Your task to perform on an android device: turn pop-ups off in chrome Image 0: 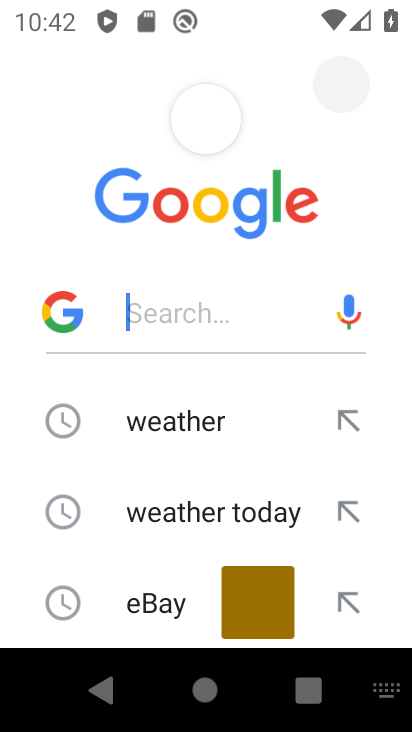
Step 0: press home button
Your task to perform on an android device: turn pop-ups off in chrome Image 1: 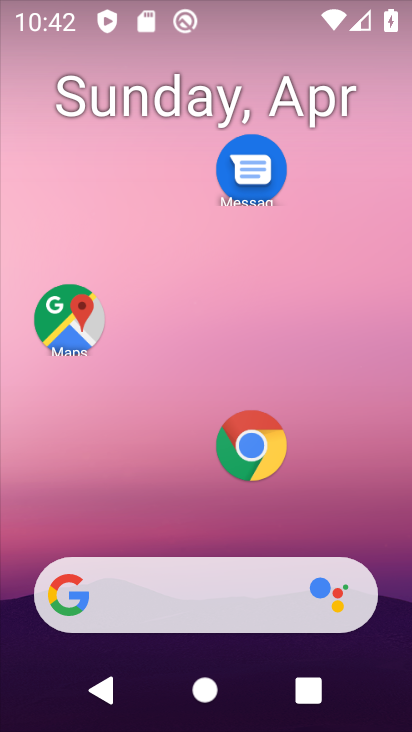
Step 1: drag from (157, 609) to (276, 209)
Your task to perform on an android device: turn pop-ups off in chrome Image 2: 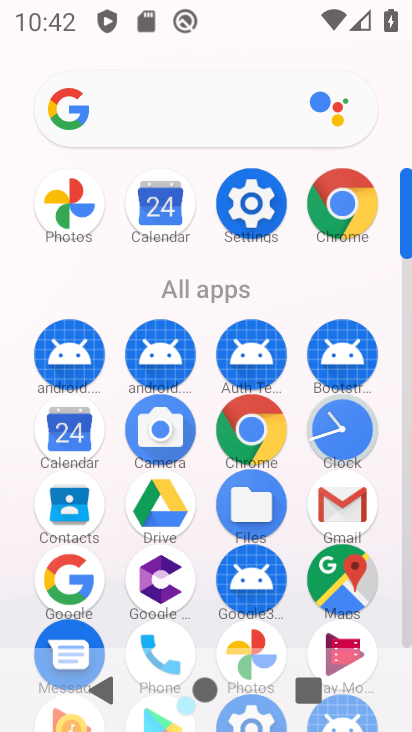
Step 2: click (346, 222)
Your task to perform on an android device: turn pop-ups off in chrome Image 3: 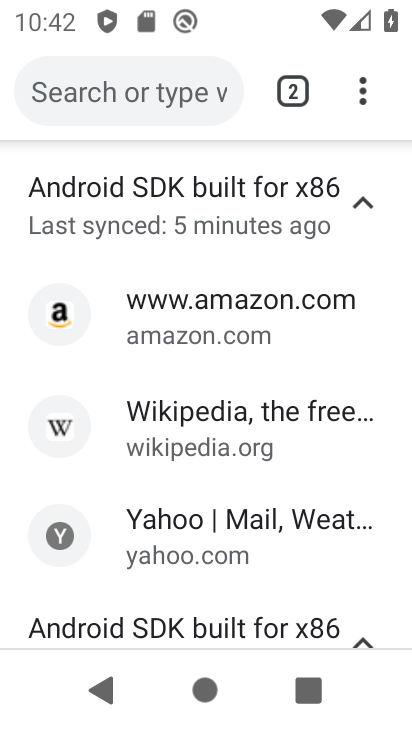
Step 3: drag from (361, 99) to (140, 471)
Your task to perform on an android device: turn pop-ups off in chrome Image 4: 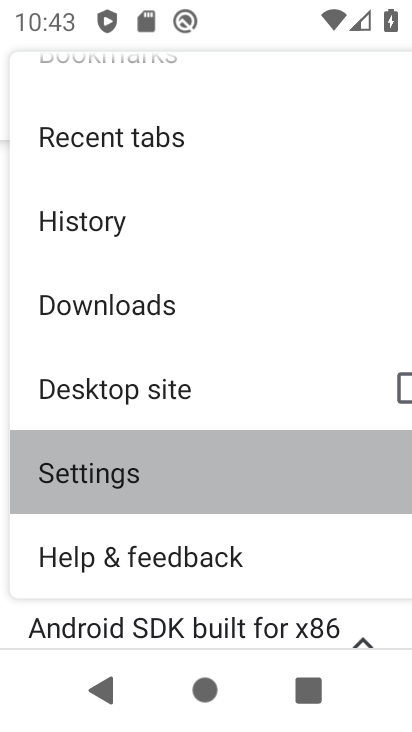
Step 4: click (140, 473)
Your task to perform on an android device: turn pop-ups off in chrome Image 5: 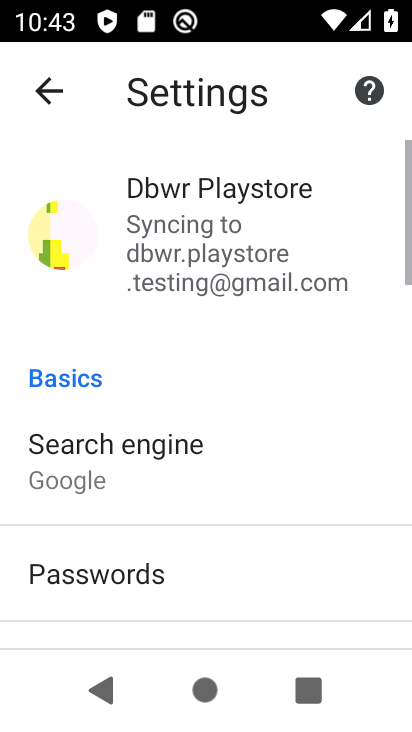
Step 5: drag from (130, 602) to (358, 94)
Your task to perform on an android device: turn pop-ups off in chrome Image 6: 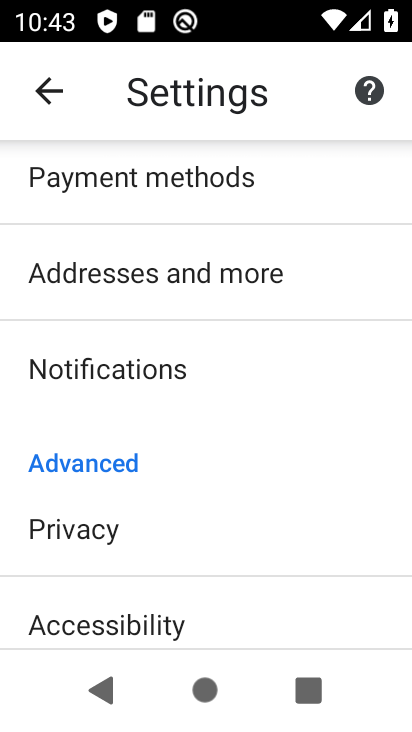
Step 6: drag from (118, 581) to (300, 170)
Your task to perform on an android device: turn pop-ups off in chrome Image 7: 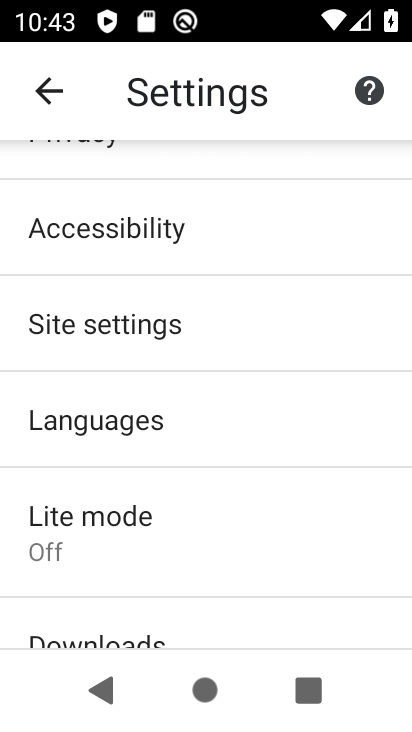
Step 7: click (130, 330)
Your task to perform on an android device: turn pop-ups off in chrome Image 8: 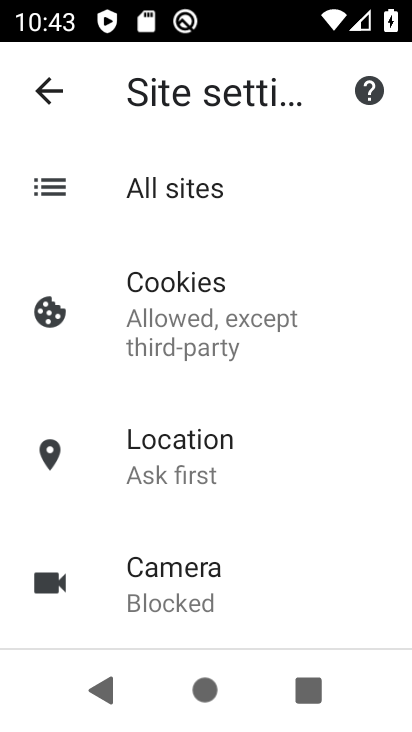
Step 8: drag from (217, 598) to (320, 275)
Your task to perform on an android device: turn pop-ups off in chrome Image 9: 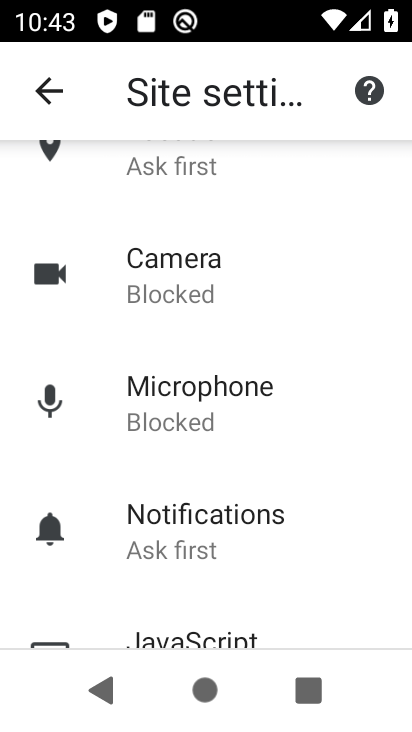
Step 9: drag from (219, 557) to (296, 251)
Your task to perform on an android device: turn pop-ups off in chrome Image 10: 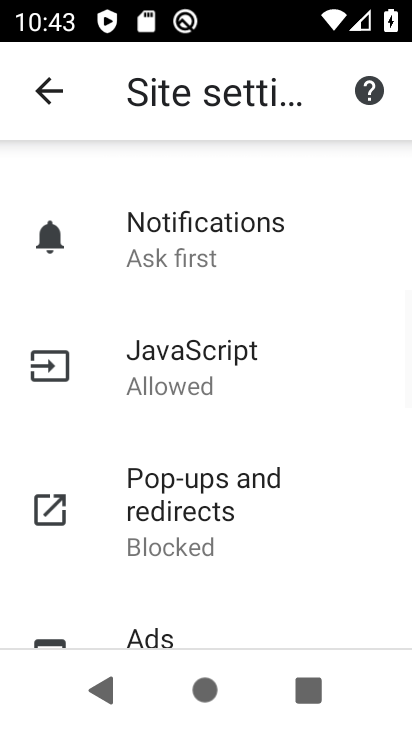
Step 10: click (207, 511)
Your task to perform on an android device: turn pop-ups off in chrome Image 11: 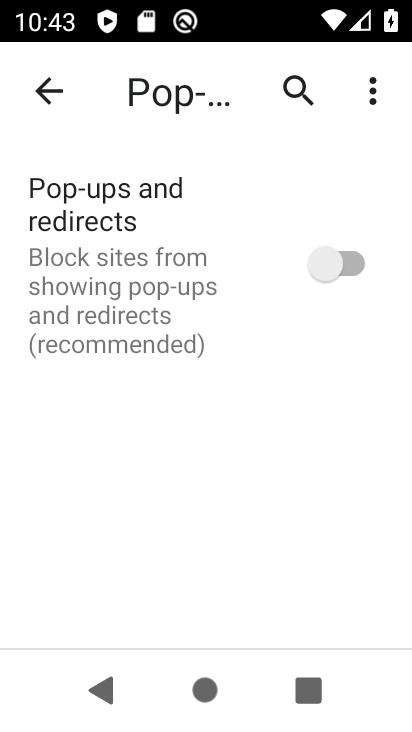
Step 11: task complete